Your task to perform on an android device: What's on my calendar tomorrow? Image 0: 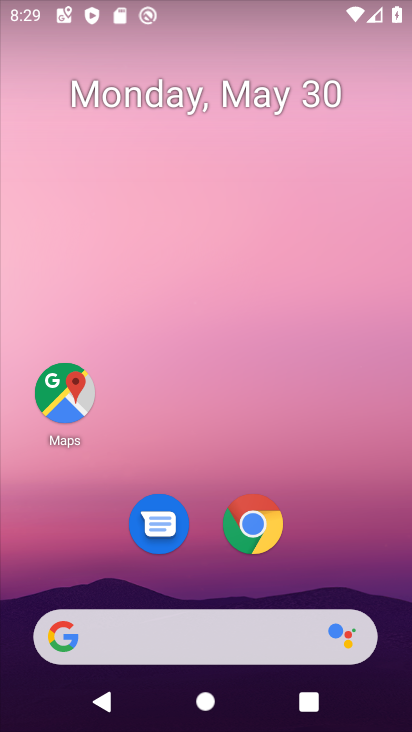
Step 0: drag from (228, 468) to (251, 1)
Your task to perform on an android device: What's on my calendar tomorrow? Image 1: 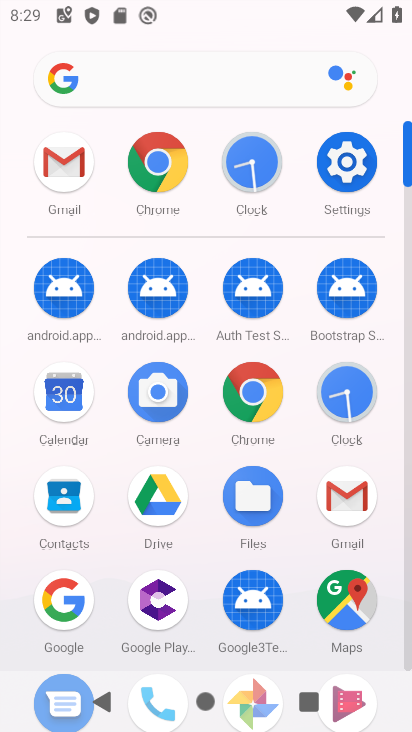
Step 1: click (61, 399)
Your task to perform on an android device: What's on my calendar tomorrow? Image 2: 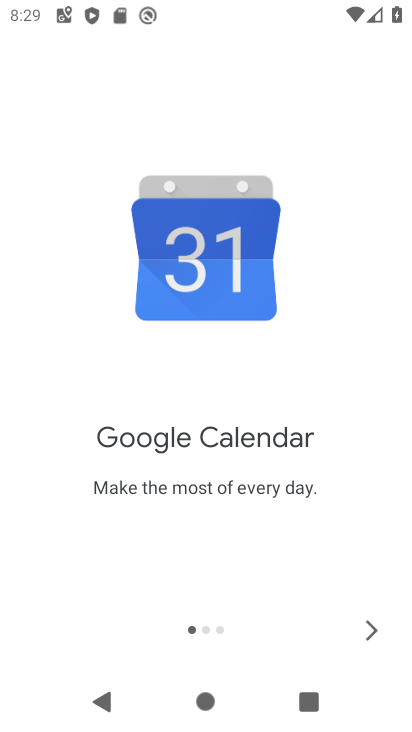
Step 2: click (370, 623)
Your task to perform on an android device: What's on my calendar tomorrow? Image 3: 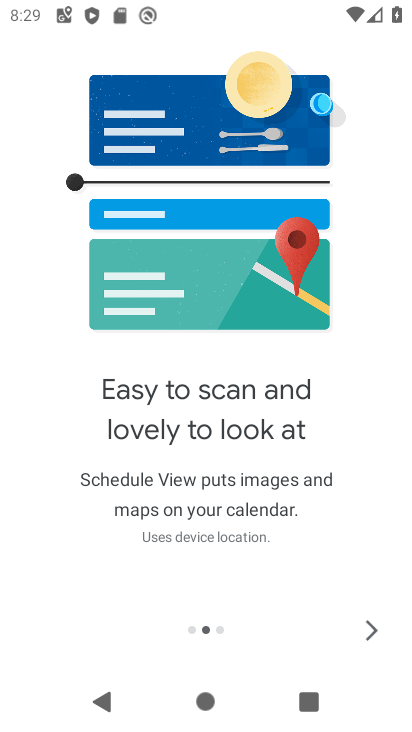
Step 3: click (369, 632)
Your task to perform on an android device: What's on my calendar tomorrow? Image 4: 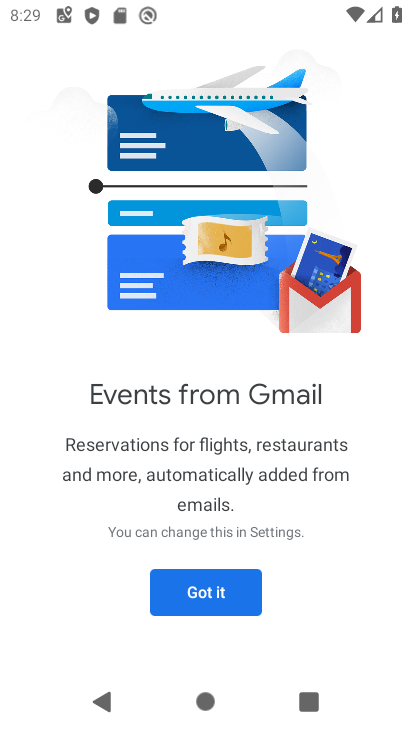
Step 4: click (242, 593)
Your task to perform on an android device: What's on my calendar tomorrow? Image 5: 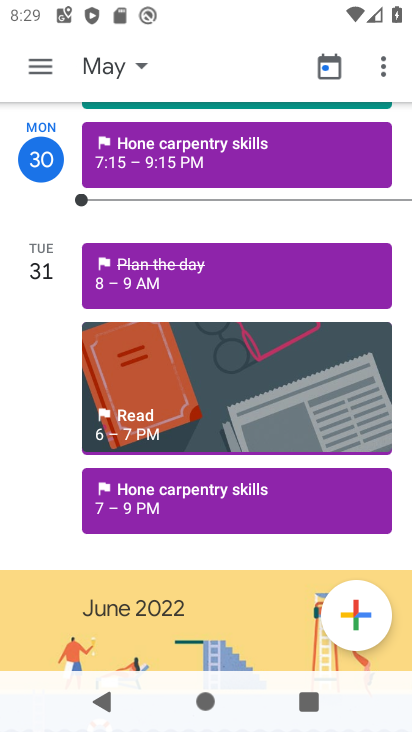
Step 5: task complete